Your task to perform on an android device: delete browsing data in the chrome app Image 0: 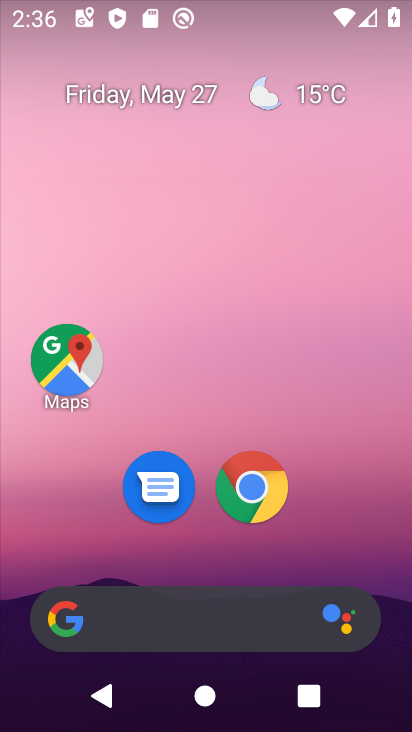
Step 0: click (235, 488)
Your task to perform on an android device: delete browsing data in the chrome app Image 1: 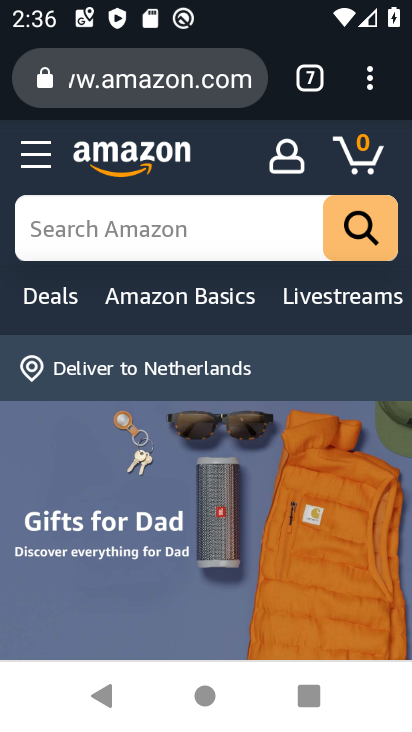
Step 1: click (381, 70)
Your task to perform on an android device: delete browsing data in the chrome app Image 2: 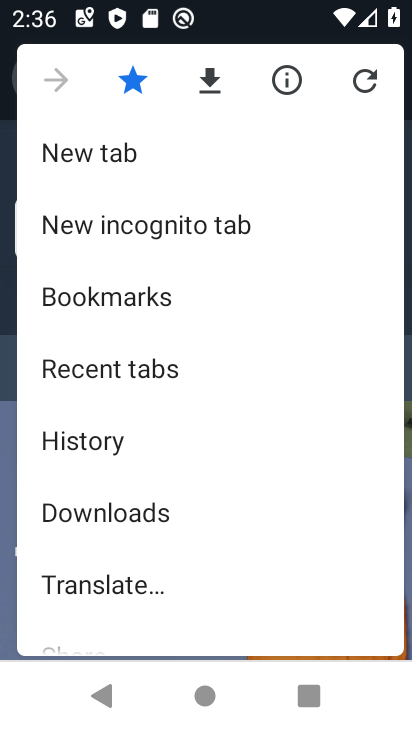
Step 2: click (131, 435)
Your task to perform on an android device: delete browsing data in the chrome app Image 3: 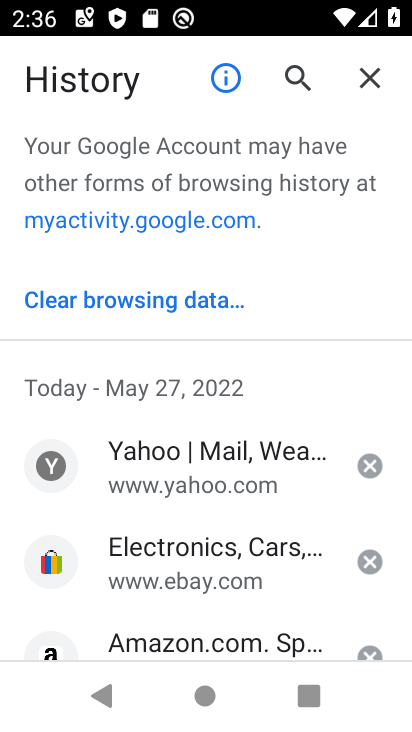
Step 3: click (148, 153)
Your task to perform on an android device: delete browsing data in the chrome app Image 4: 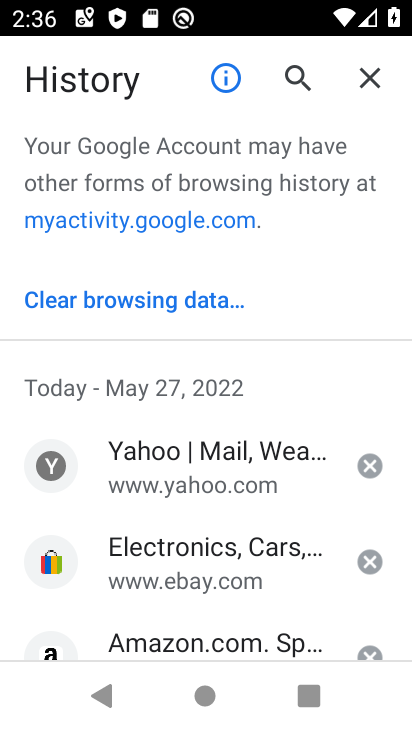
Step 4: click (129, 317)
Your task to perform on an android device: delete browsing data in the chrome app Image 5: 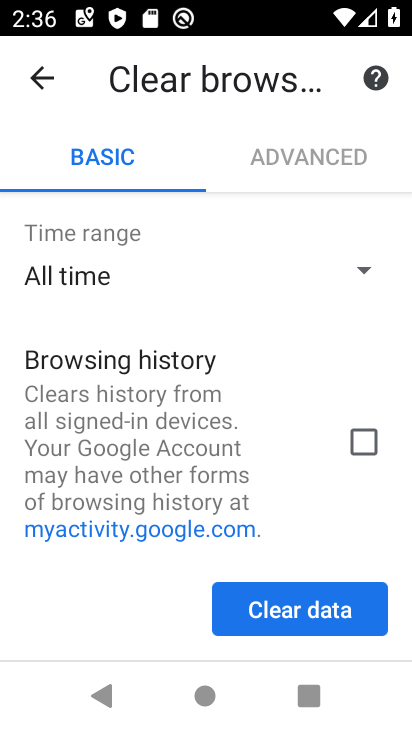
Step 5: click (372, 446)
Your task to perform on an android device: delete browsing data in the chrome app Image 6: 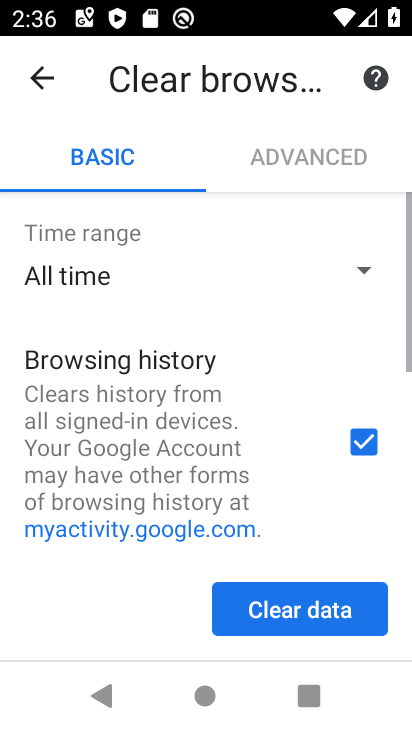
Step 6: click (279, 600)
Your task to perform on an android device: delete browsing data in the chrome app Image 7: 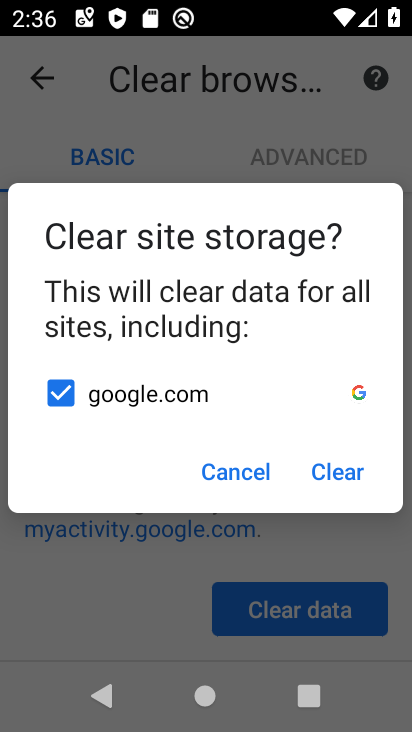
Step 7: click (345, 488)
Your task to perform on an android device: delete browsing data in the chrome app Image 8: 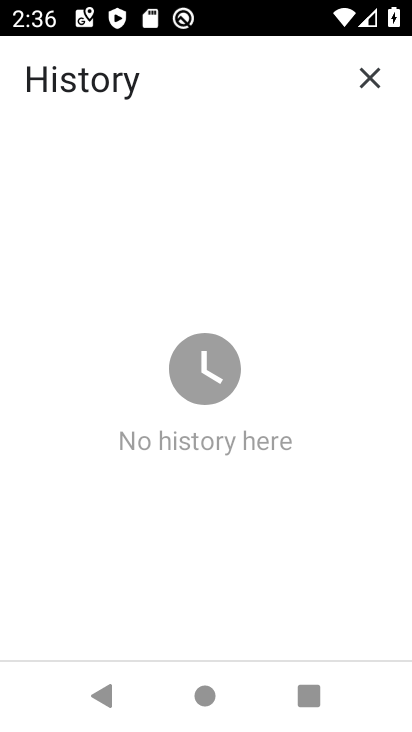
Step 8: task complete